Your task to perform on an android device: Open the calendar app, open the side menu, and click the "Day" option Image 0: 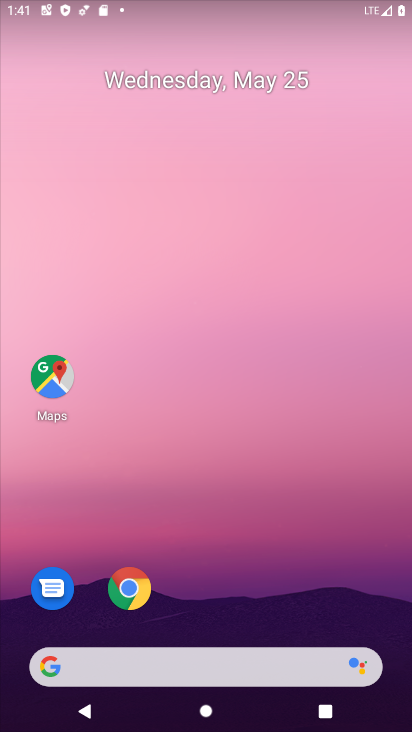
Step 0: drag from (281, 623) to (253, 27)
Your task to perform on an android device: Open the calendar app, open the side menu, and click the "Day" option Image 1: 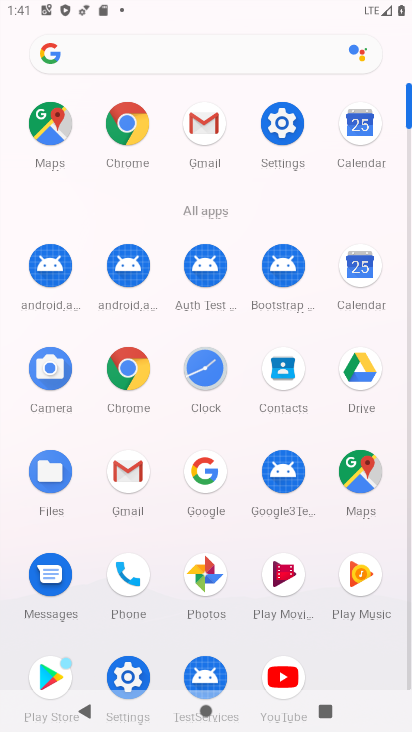
Step 1: click (355, 129)
Your task to perform on an android device: Open the calendar app, open the side menu, and click the "Day" option Image 2: 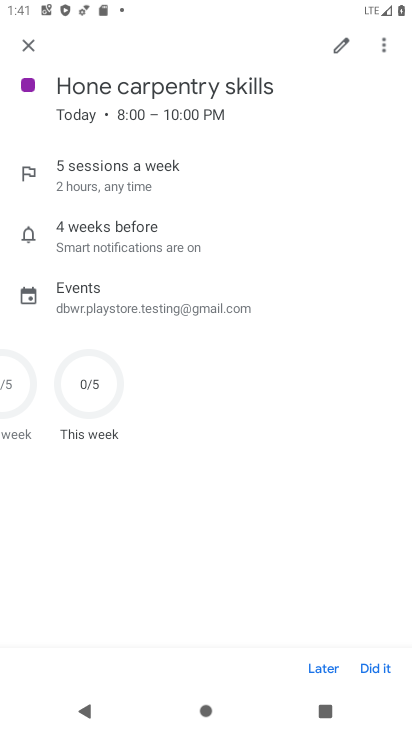
Step 2: click (26, 43)
Your task to perform on an android device: Open the calendar app, open the side menu, and click the "Day" option Image 3: 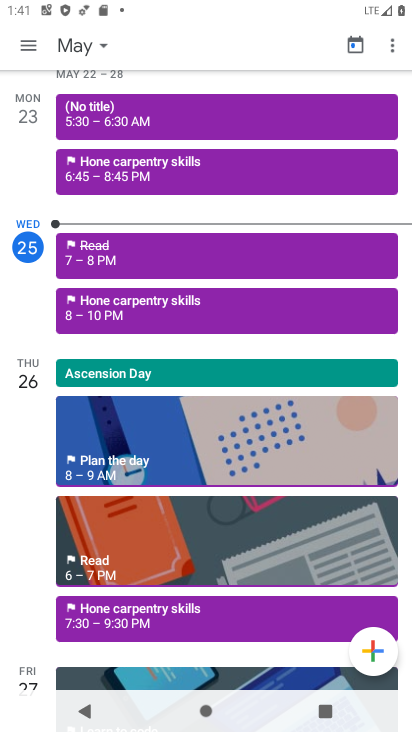
Step 3: click (26, 43)
Your task to perform on an android device: Open the calendar app, open the side menu, and click the "Day" option Image 4: 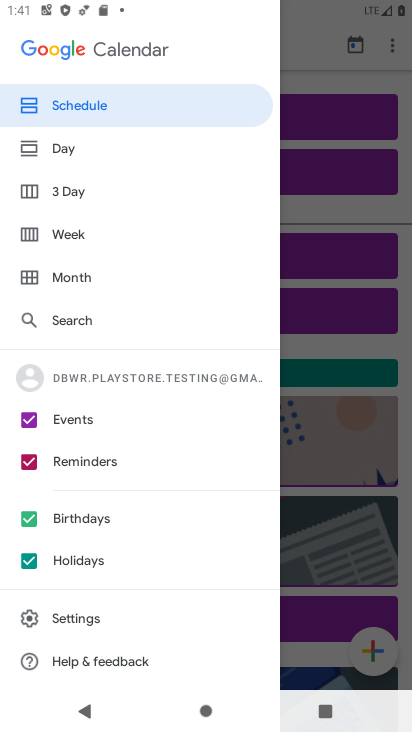
Step 4: click (60, 142)
Your task to perform on an android device: Open the calendar app, open the side menu, and click the "Day" option Image 5: 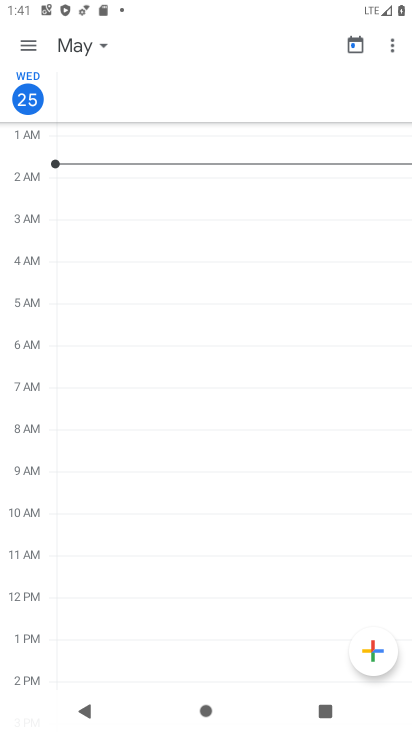
Step 5: task complete